Your task to perform on an android device: What's the weather going to be tomorrow? Image 0: 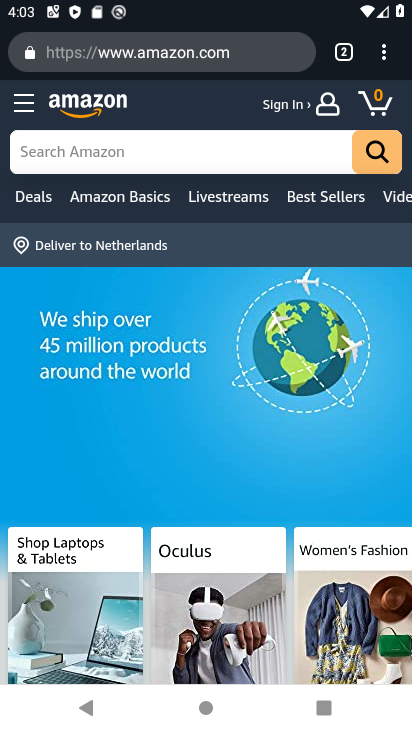
Step 0: press home button
Your task to perform on an android device: What's the weather going to be tomorrow? Image 1: 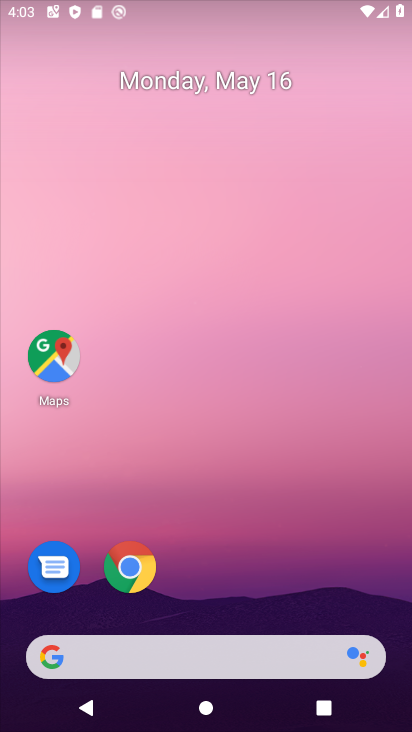
Step 1: drag from (22, 311) to (410, 274)
Your task to perform on an android device: What's the weather going to be tomorrow? Image 2: 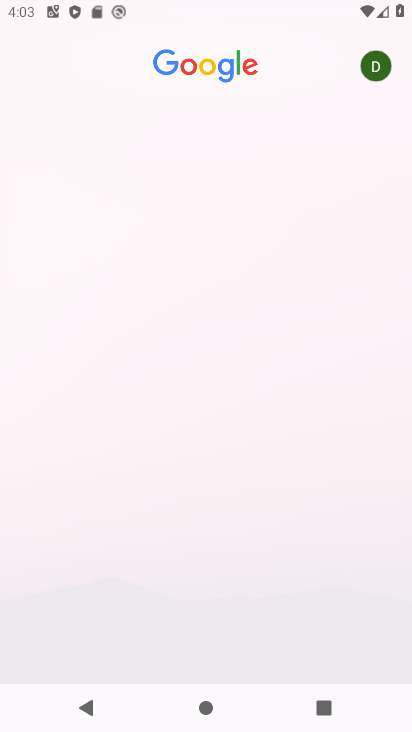
Step 2: drag from (261, 112) to (296, 531)
Your task to perform on an android device: What's the weather going to be tomorrow? Image 3: 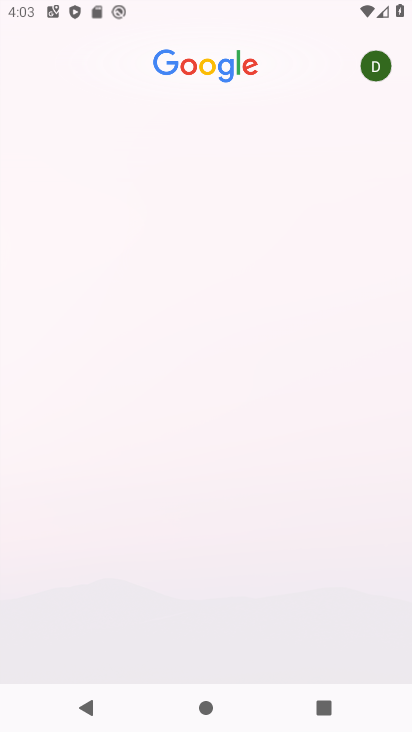
Step 3: press back button
Your task to perform on an android device: What's the weather going to be tomorrow? Image 4: 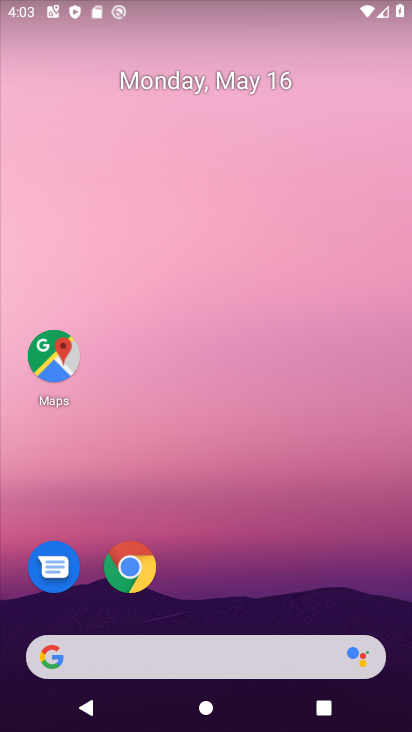
Step 4: drag from (223, 628) to (288, 12)
Your task to perform on an android device: What's the weather going to be tomorrow? Image 5: 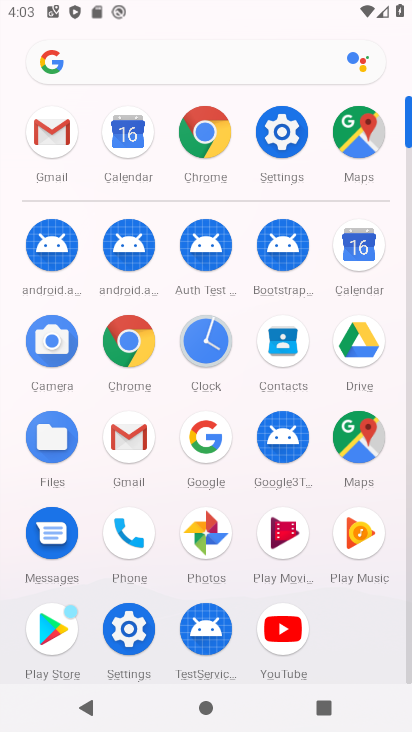
Step 5: click (130, 337)
Your task to perform on an android device: What's the weather going to be tomorrow? Image 6: 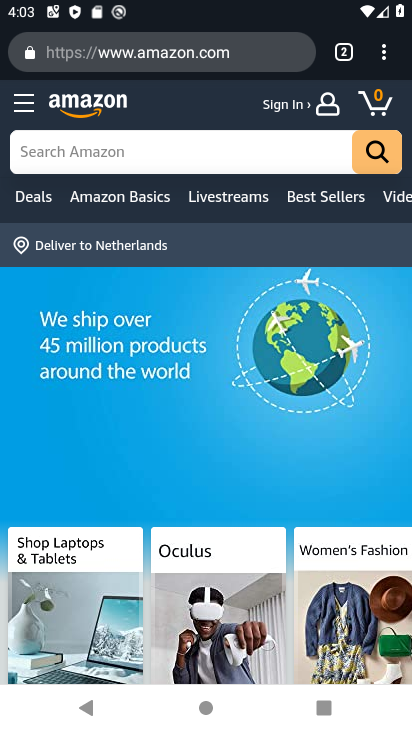
Step 6: click (179, 56)
Your task to perform on an android device: What's the weather going to be tomorrow? Image 7: 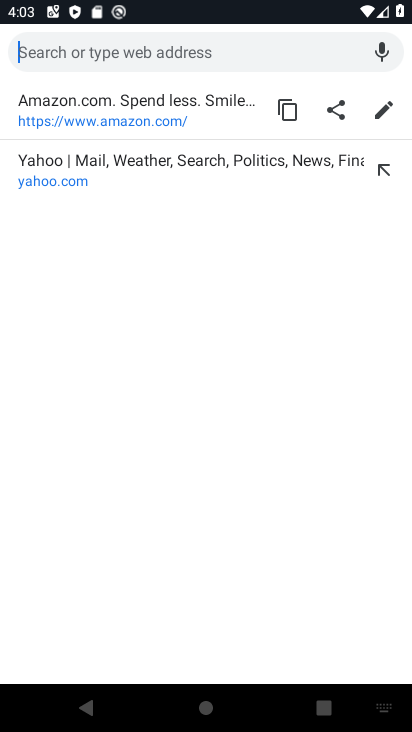
Step 7: type "weather going to be tomorrow"
Your task to perform on an android device: What's the weather going to be tomorrow? Image 8: 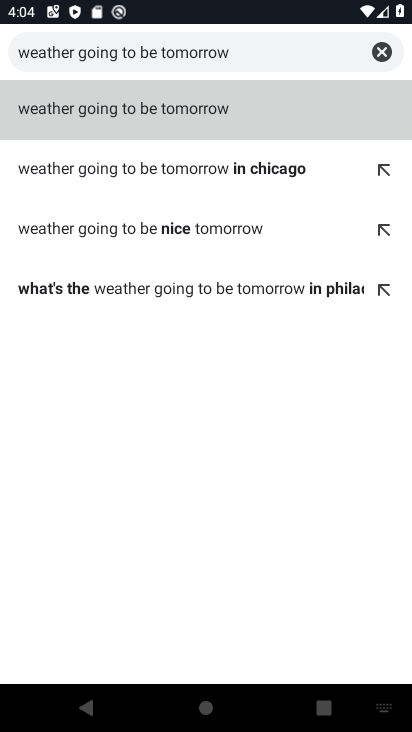
Step 8: click (199, 114)
Your task to perform on an android device: What's the weather going to be tomorrow? Image 9: 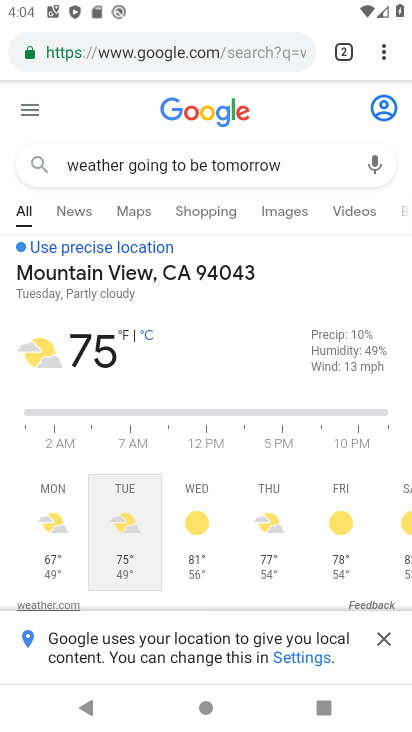
Step 9: task complete